Your task to perform on an android device: Go to Maps Image 0: 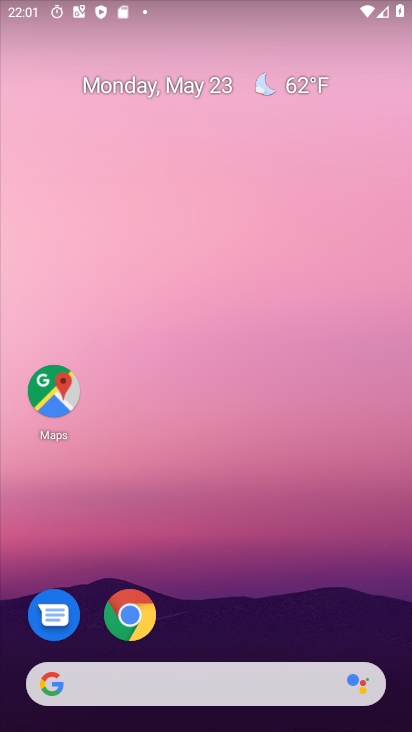
Step 0: click (59, 388)
Your task to perform on an android device: Go to Maps Image 1: 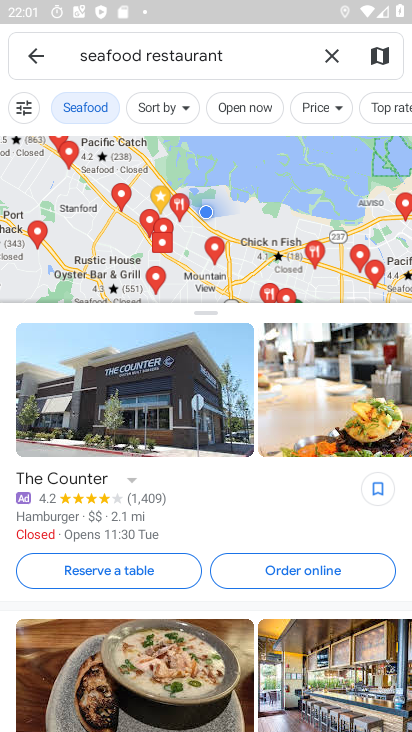
Step 1: task complete